Your task to perform on an android device: change timer sound Image 0: 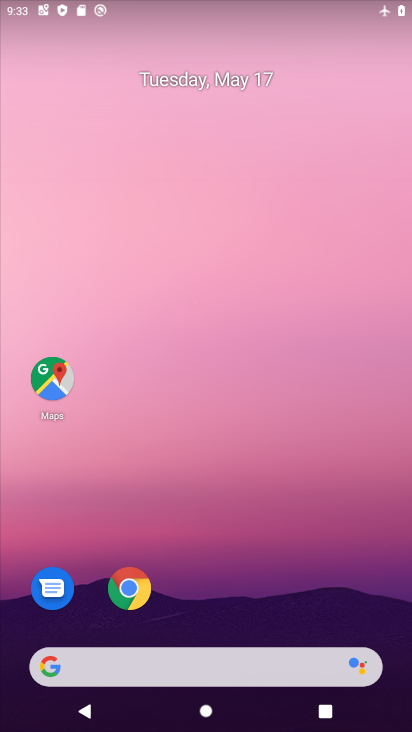
Step 0: drag from (205, 660) to (165, 26)
Your task to perform on an android device: change timer sound Image 1: 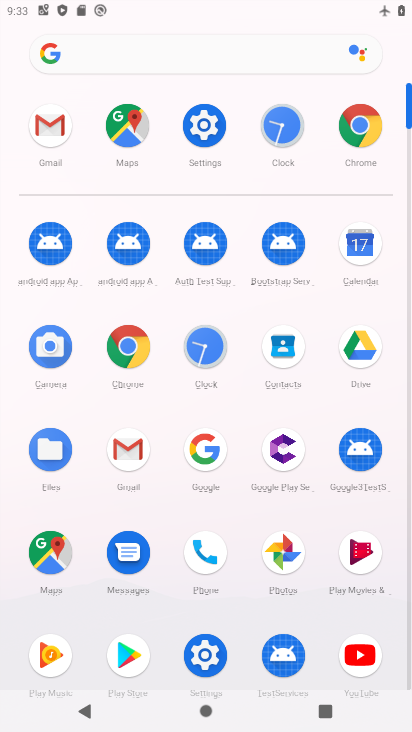
Step 1: click (203, 128)
Your task to perform on an android device: change timer sound Image 2: 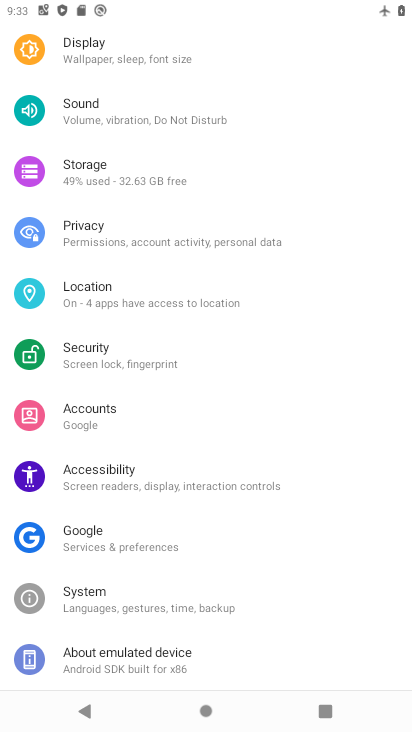
Step 2: press home button
Your task to perform on an android device: change timer sound Image 3: 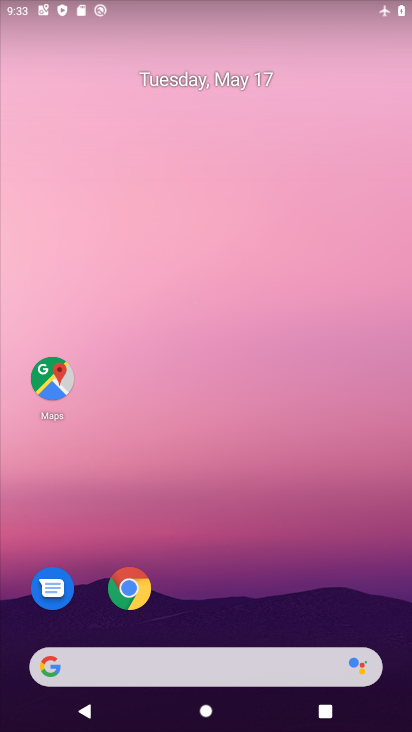
Step 3: drag from (201, 634) to (104, 12)
Your task to perform on an android device: change timer sound Image 4: 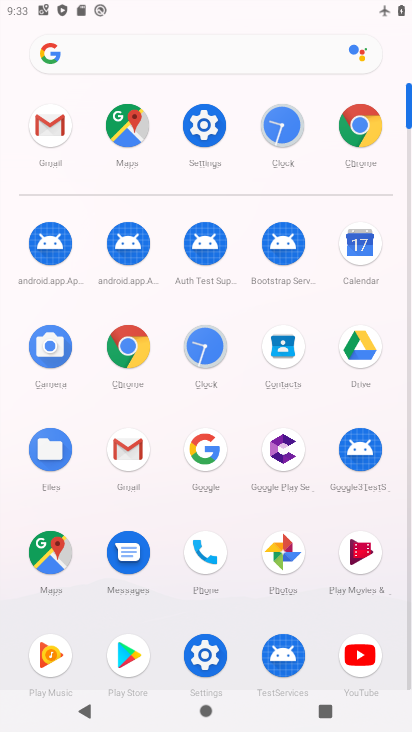
Step 4: click (203, 347)
Your task to perform on an android device: change timer sound Image 5: 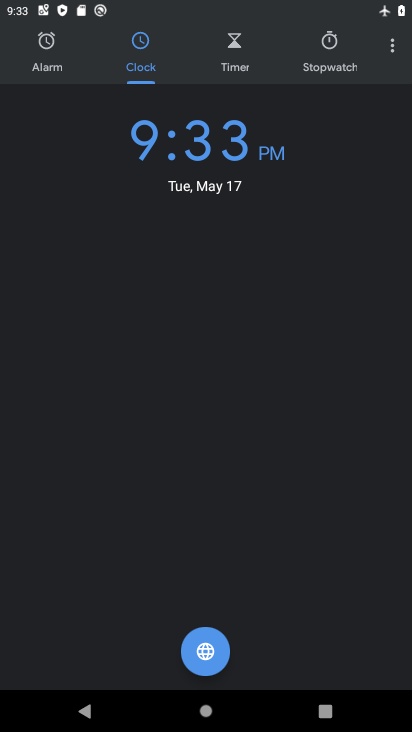
Step 5: click (389, 47)
Your task to perform on an android device: change timer sound Image 6: 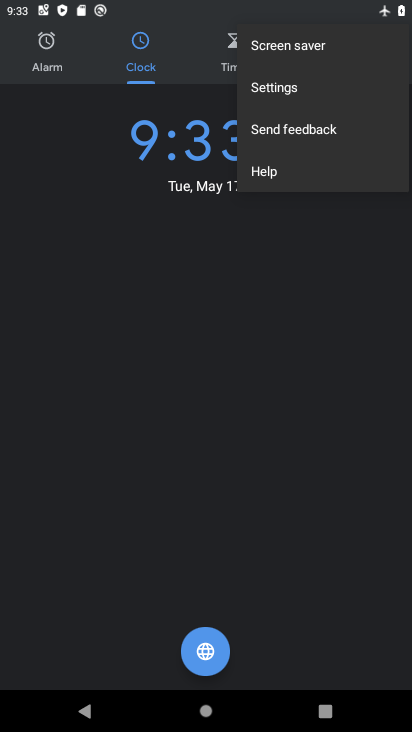
Step 6: click (312, 89)
Your task to perform on an android device: change timer sound Image 7: 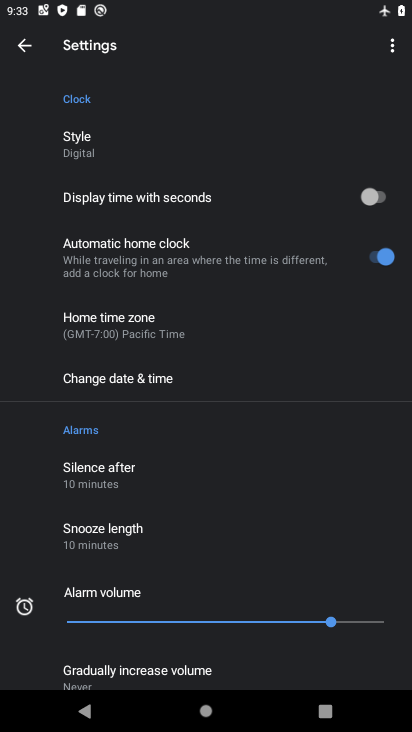
Step 7: click (127, 379)
Your task to perform on an android device: change timer sound Image 8: 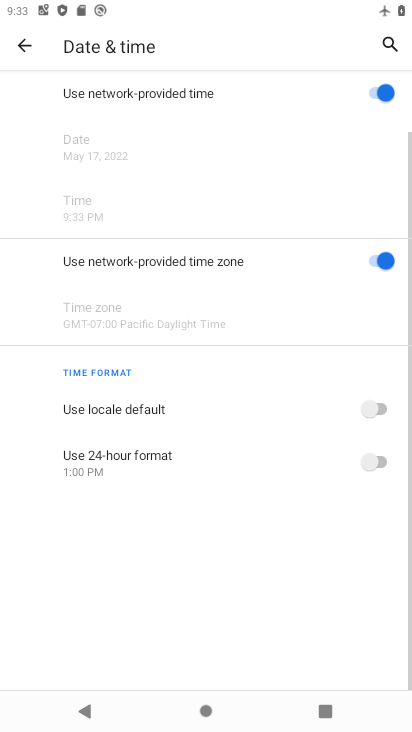
Step 8: click (30, 31)
Your task to perform on an android device: change timer sound Image 9: 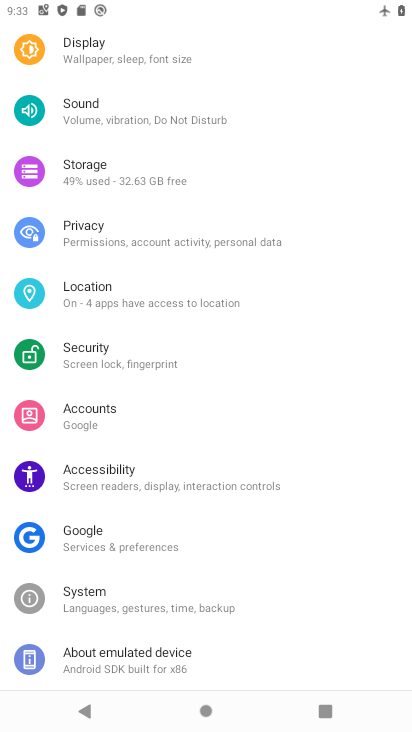
Step 9: press back button
Your task to perform on an android device: change timer sound Image 10: 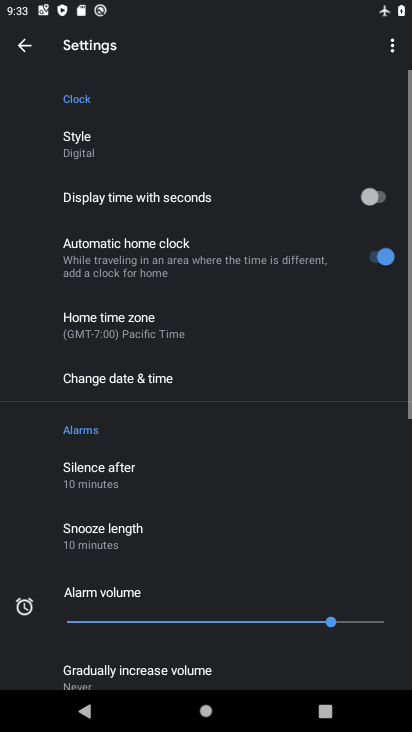
Step 10: drag from (229, 548) to (229, 112)
Your task to perform on an android device: change timer sound Image 11: 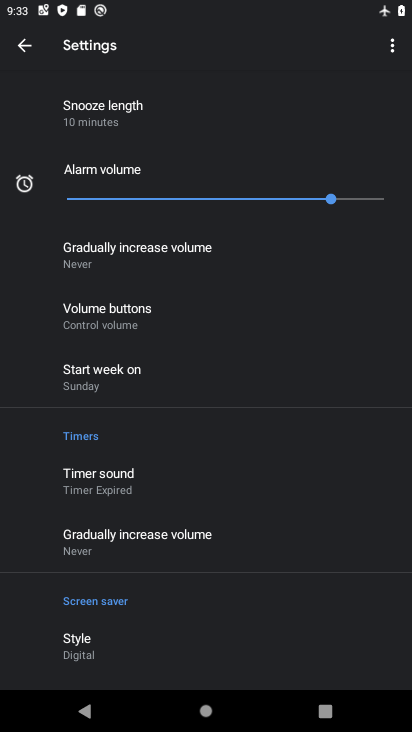
Step 11: click (124, 502)
Your task to perform on an android device: change timer sound Image 12: 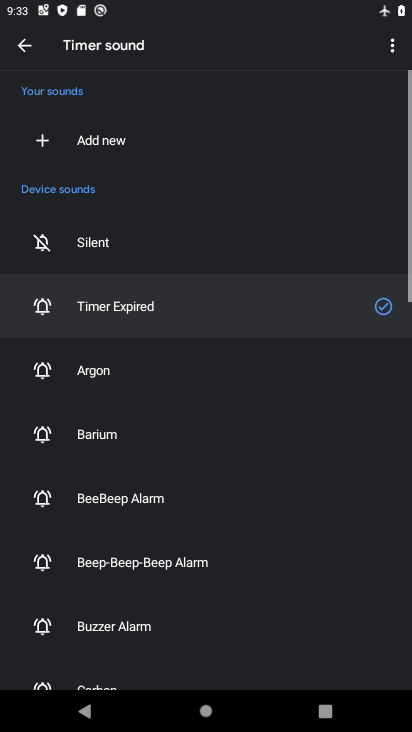
Step 12: click (129, 377)
Your task to perform on an android device: change timer sound Image 13: 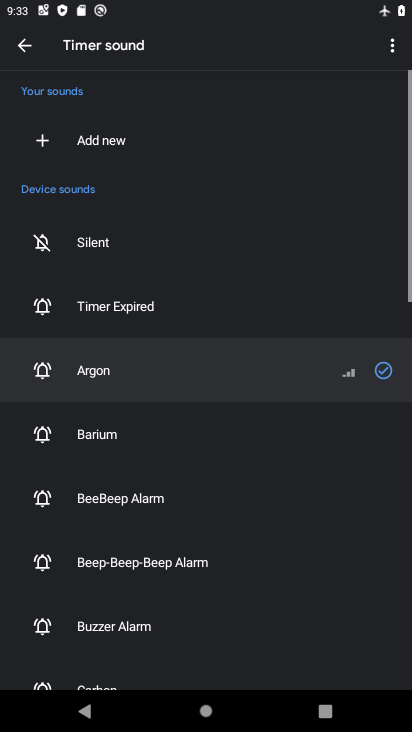
Step 13: task complete